Your task to perform on an android device: What is the news today? Image 0: 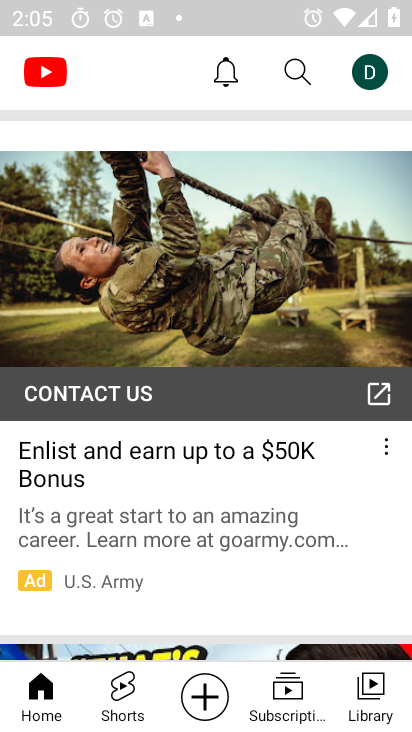
Step 0: press back button
Your task to perform on an android device: What is the news today? Image 1: 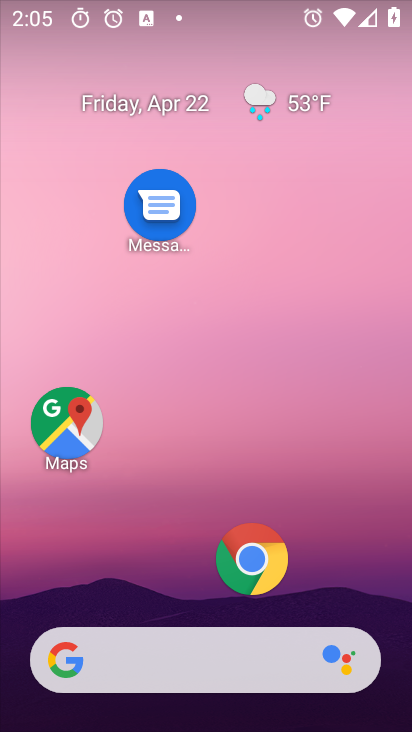
Step 1: drag from (203, 389) to (218, 281)
Your task to perform on an android device: What is the news today? Image 2: 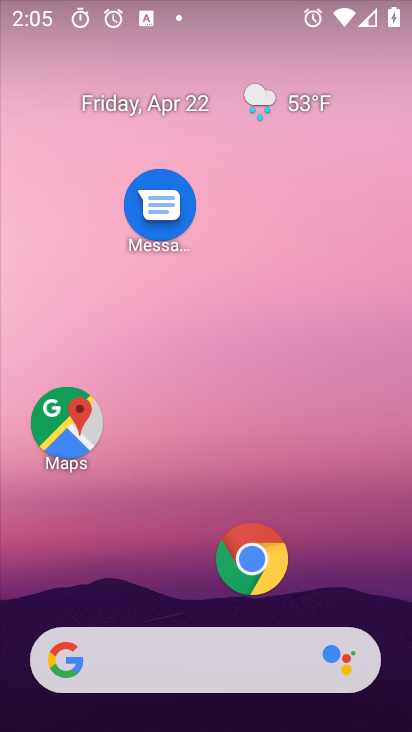
Step 2: drag from (190, 549) to (259, 210)
Your task to perform on an android device: What is the news today? Image 3: 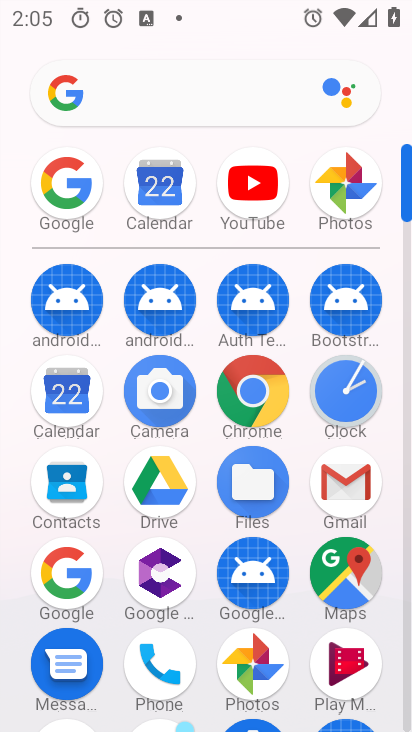
Step 3: click (60, 195)
Your task to perform on an android device: What is the news today? Image 4: 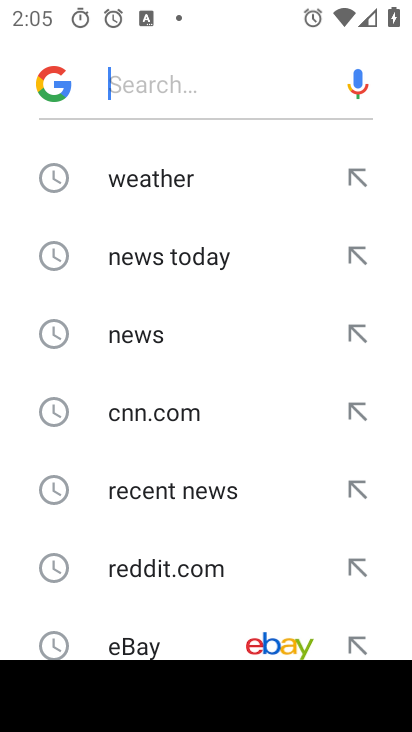
Step 4: click (152, 264)
Your task to perform on an android device: What is the news today? Image 5: 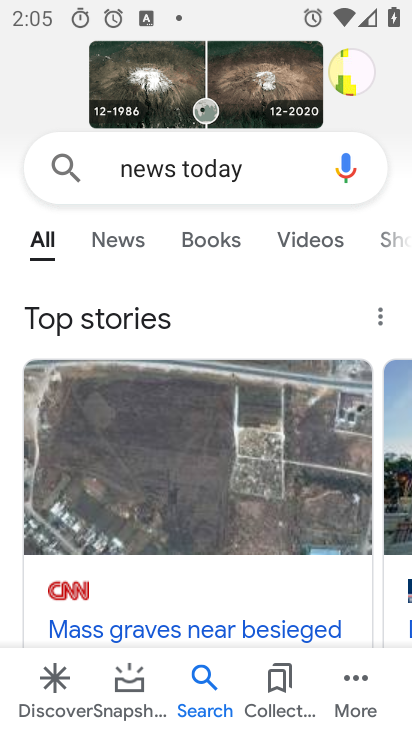
Step 5: task complete